Your task to perform on an android device: turn on improve location accuracy Image 0: 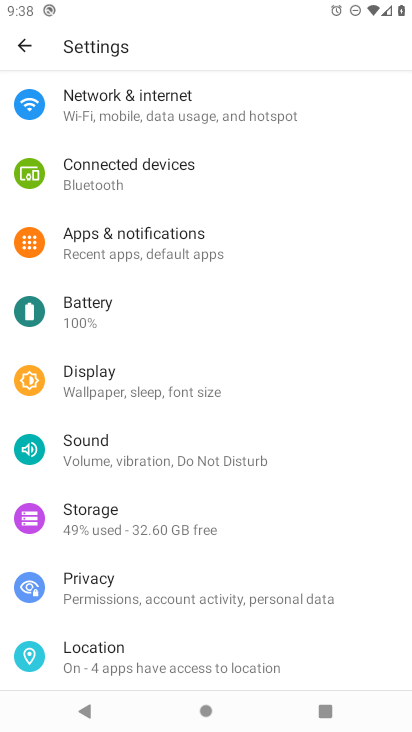
Step 0: click (121, 654)
Your task to perform on an android device: turn on improve location accuracy Image 1: 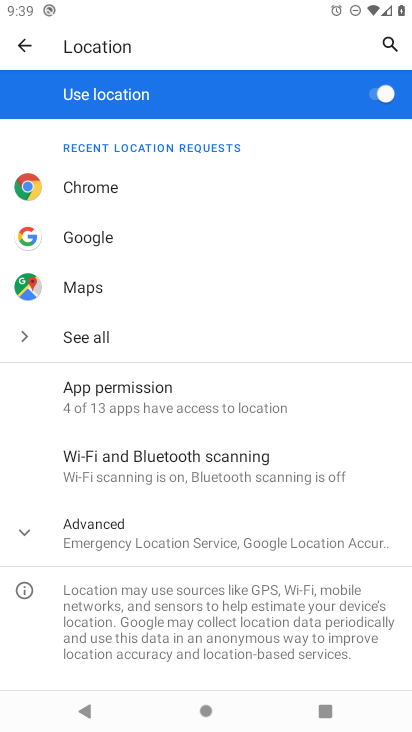
Step 1: click (94, 530)
Your task to perform on an android device: turn on improve location accuracy Image 2: 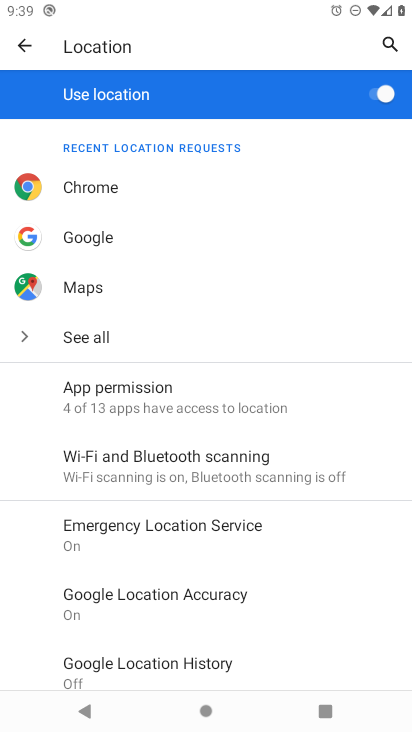
Step 2: click (83, 604)
Your task to perform on an android device: turn on improve location accuracy Image 3: 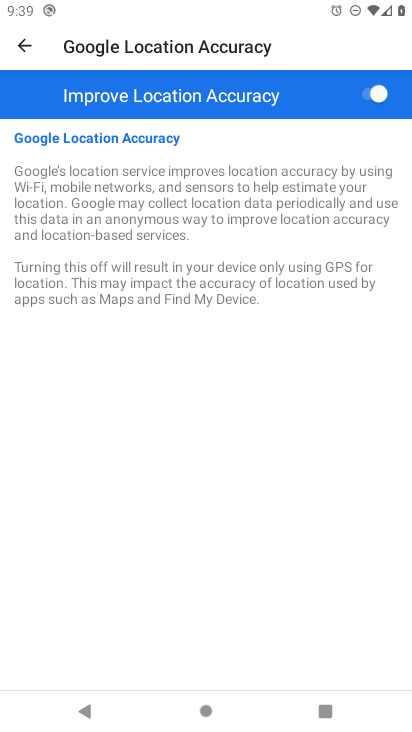
Step 3: task complete